Your task to perform on an android device: Open Android settings Image 0: 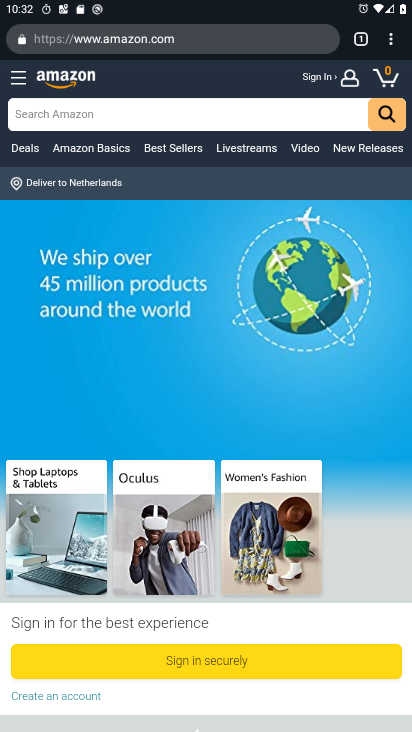
Step 0: press home button
Your task to perform on an android device: Open Android settings Image 1: 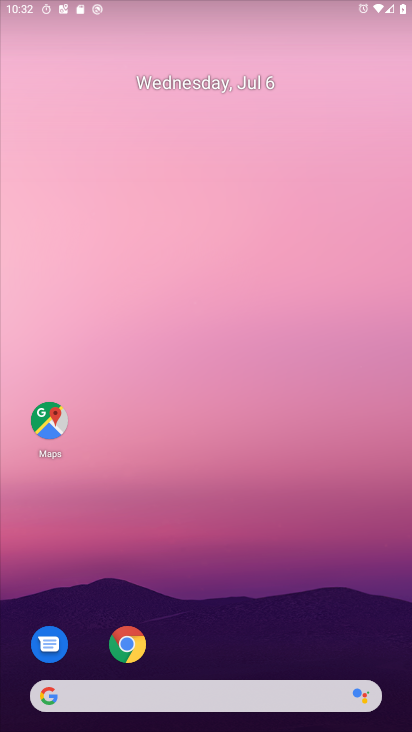
Step 1: drag from (208, 660) to (234, 229)
Your task to perform on an android device: Open Android settings Image 2: 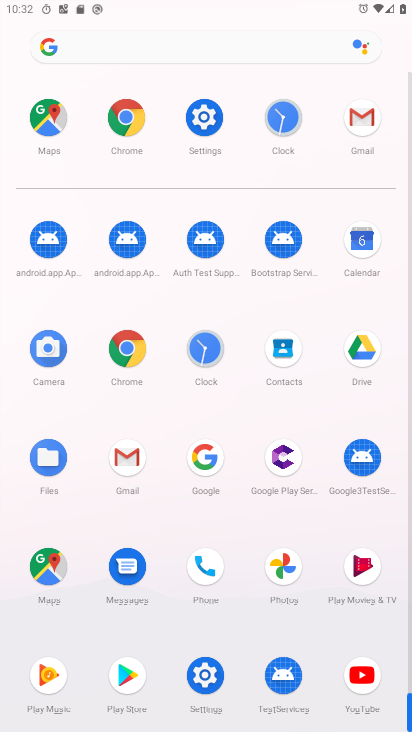
Step 2: click (213, 135)
Your task to perform on an android device: Open Android settings Image 3: 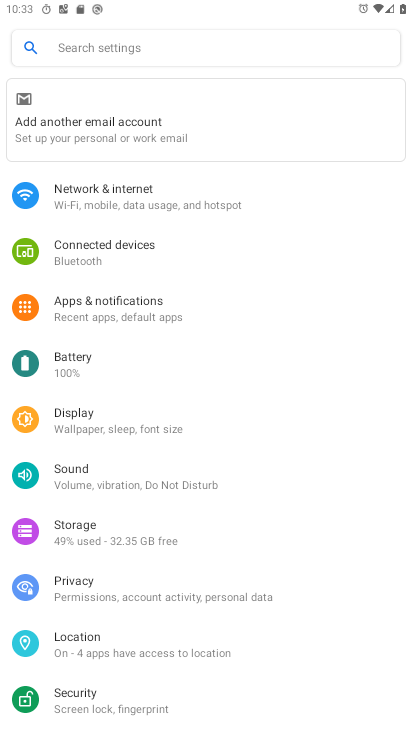
Step 3: drag from (157, 539) to (173, 209)
Your task to perform on an android device: Open Android settings Image 4: 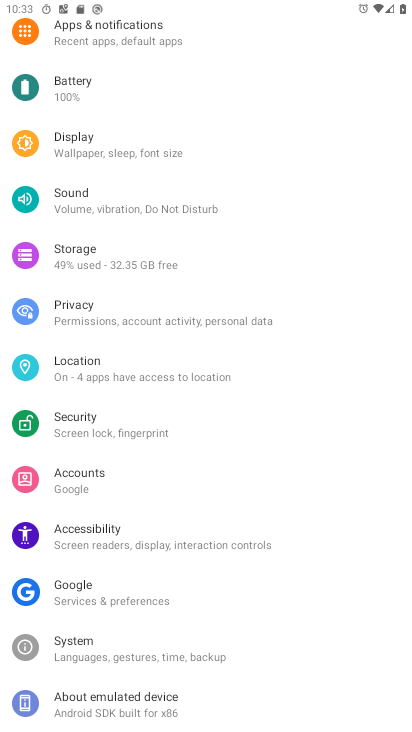
Step 4: drag from (124, 604) to (164, 333)
Your task to perform on an android device: Open Android settings Image 5: 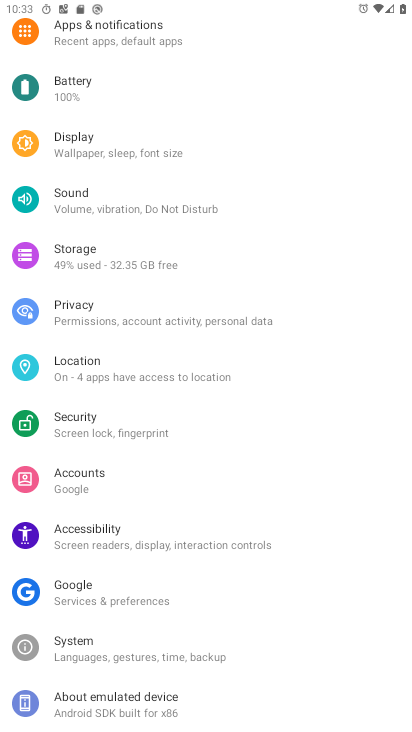
Step 5: click (140, 706)
Your task to perform on an android device: Open Android settings Image 6: 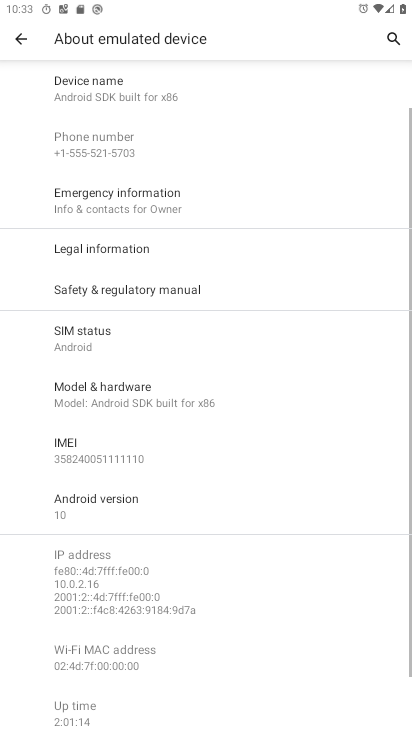
Step 6: click (124, 507)
Your task to perform on an android device: Open Android settings Image 7: 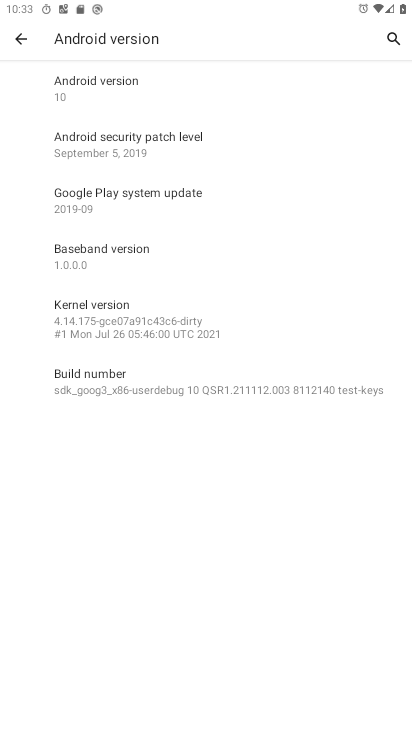
Step 7: click (174, 91)
Your task to perform on an android device: Open Android settings Image 8: 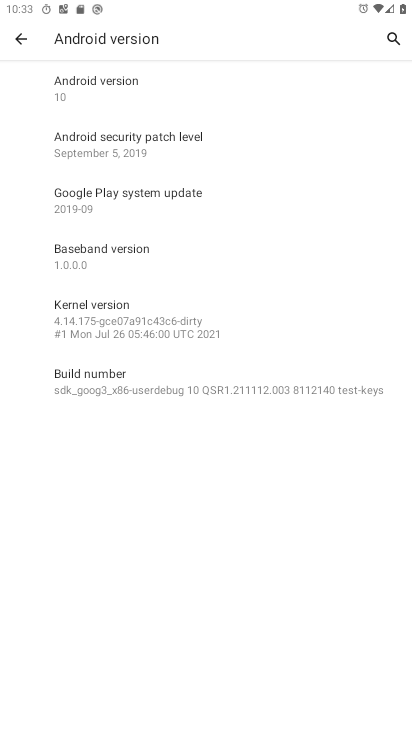
Step 8: task complete